Your task to perform on an android device: delete a single message in the gmail app Image 0: 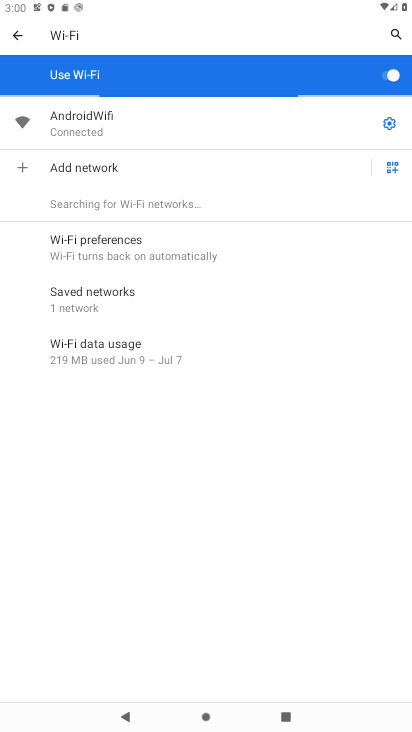
Step 0: press home button
Your task to perform on an android device: delete a single message in the gmail app Image 1: 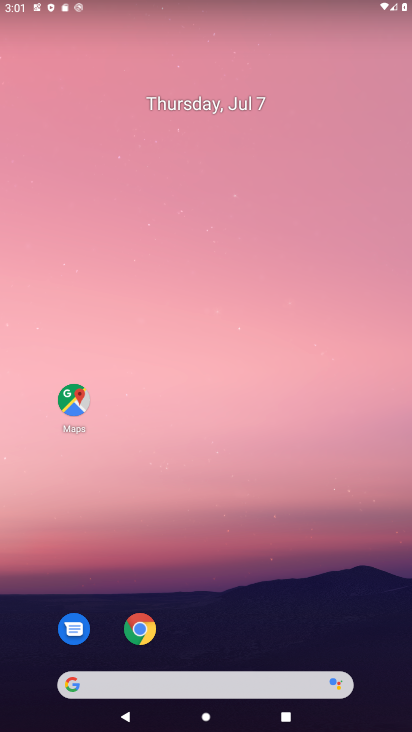
Step 1: drag from (271, 147) to (392, 19)
Your task to perform on an android device: delete a single message in the gmail app Image 2: 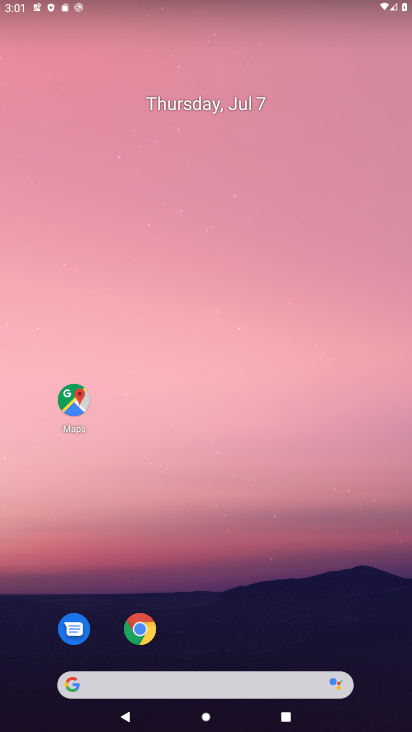
Step 2: drag from (235, 620) to (251, 29)
Your task to perform on an android device: delete a single message in the gmail app Image 3: 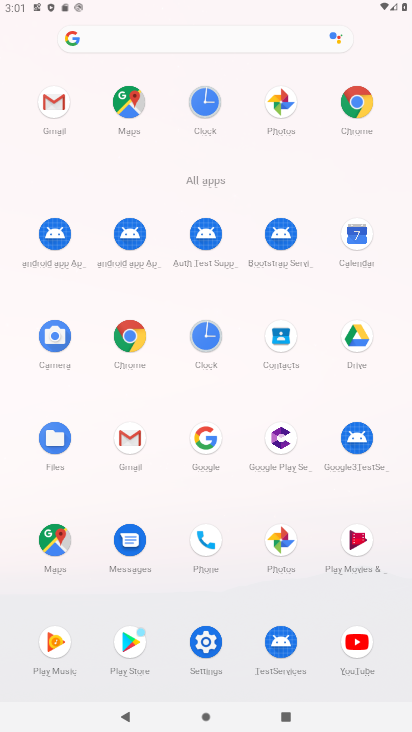
Step 3: click (56, 106)
Your task to perform on an android device: delete a single message in the gmail app Image 4: 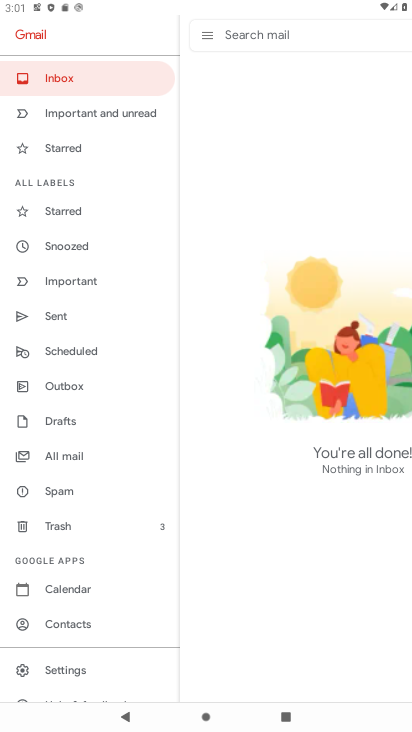
Step 4: task complete